Your task to perform on an android device: Open maps Image 0: 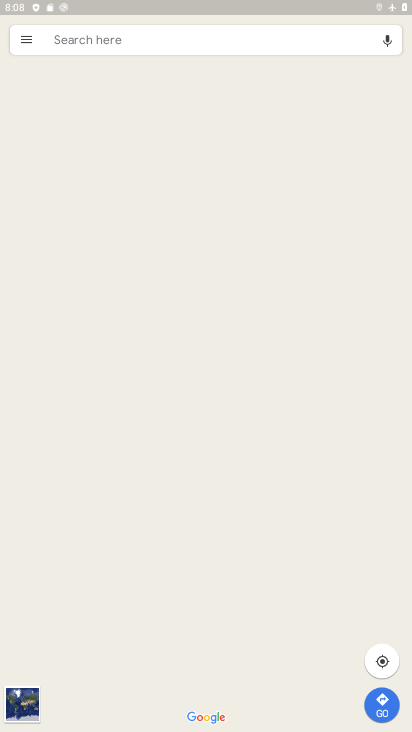
Step 0: press home button
Your task to perform on an android device: Open maps Image 1: 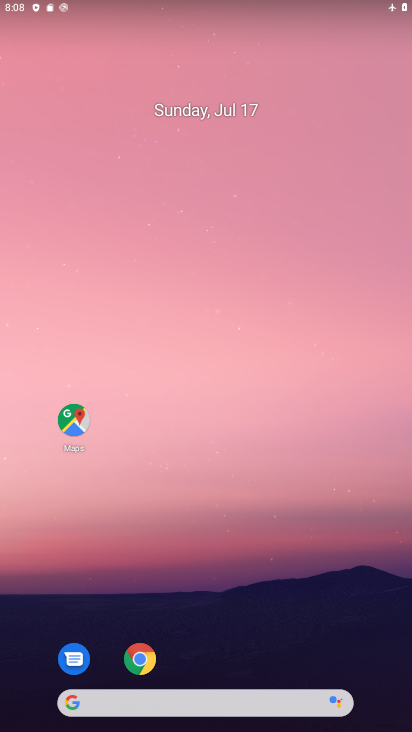
Step 1: click (79, 416)
Your task to perform on an android device: Open maps Image 2: 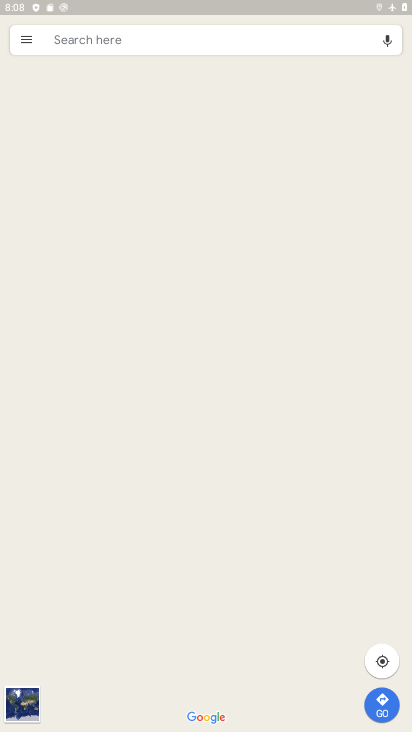
Step 2: task complete